Your task to perform on an android device: open app "Reddit" Image 0: 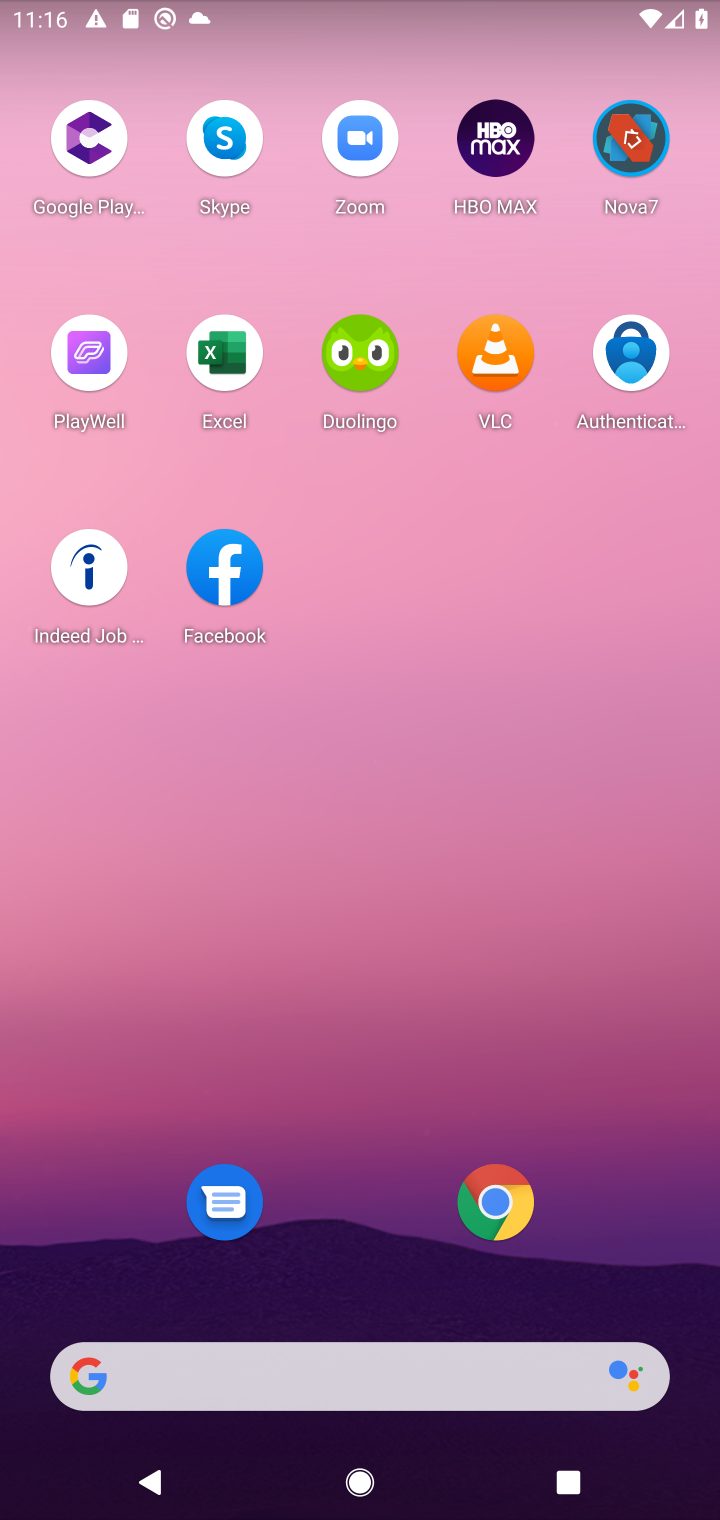
Step 0: click (366, 1370)
Your task to perform on an android device: open app "Reddit" Image 1: 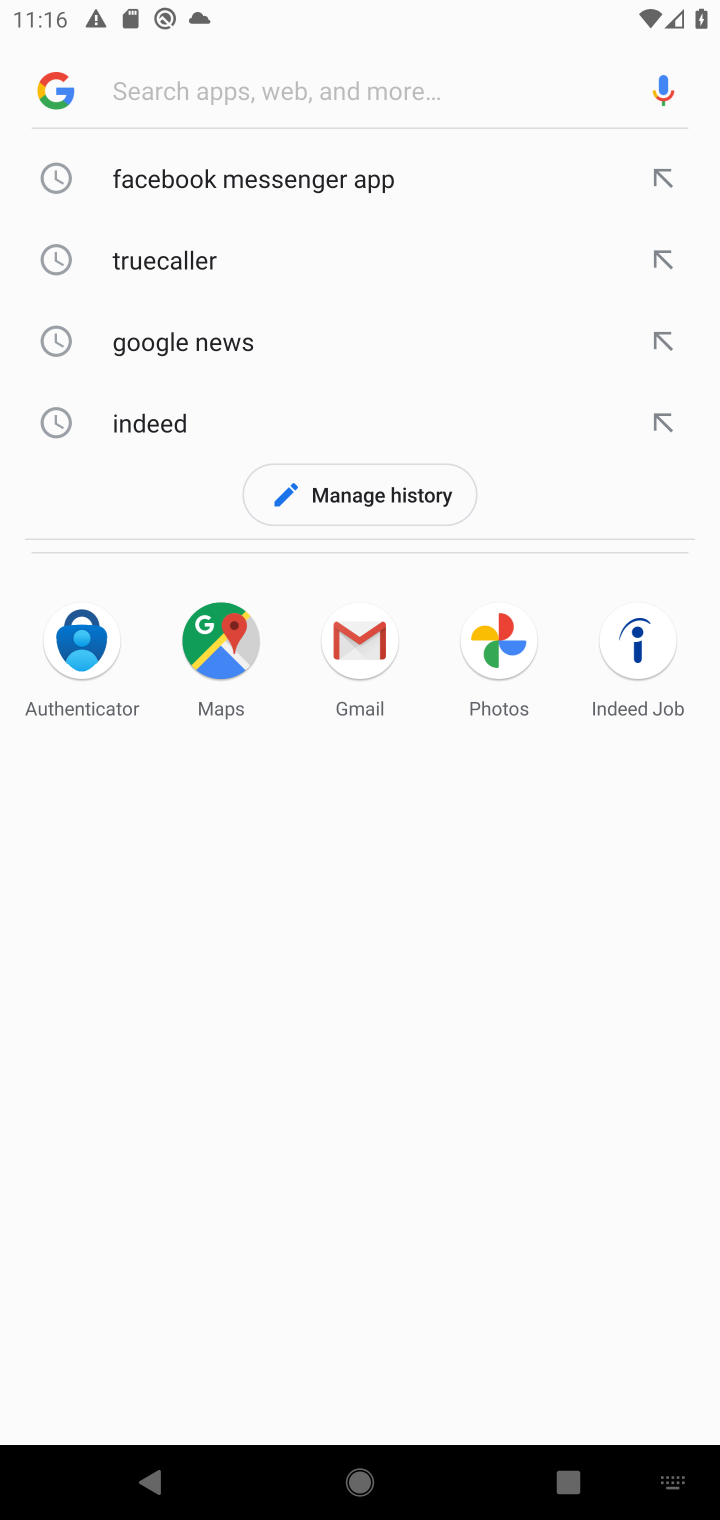
Step 1: type "reddit"
Your task to perform on an android device: open app "Reddit" Image 2: 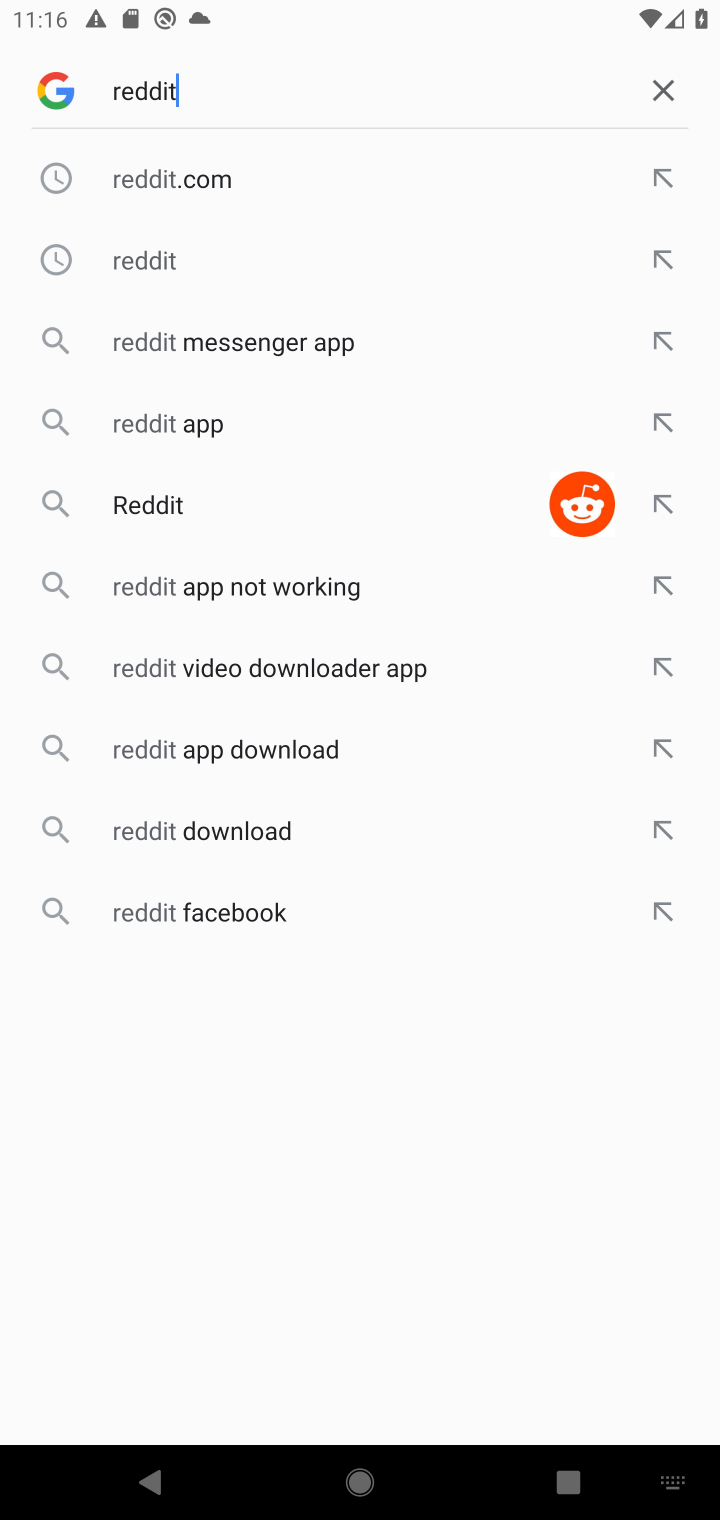
Step 2: click (346, 183)
Your task to perform on an android device: open app "Reddit" Image 3: 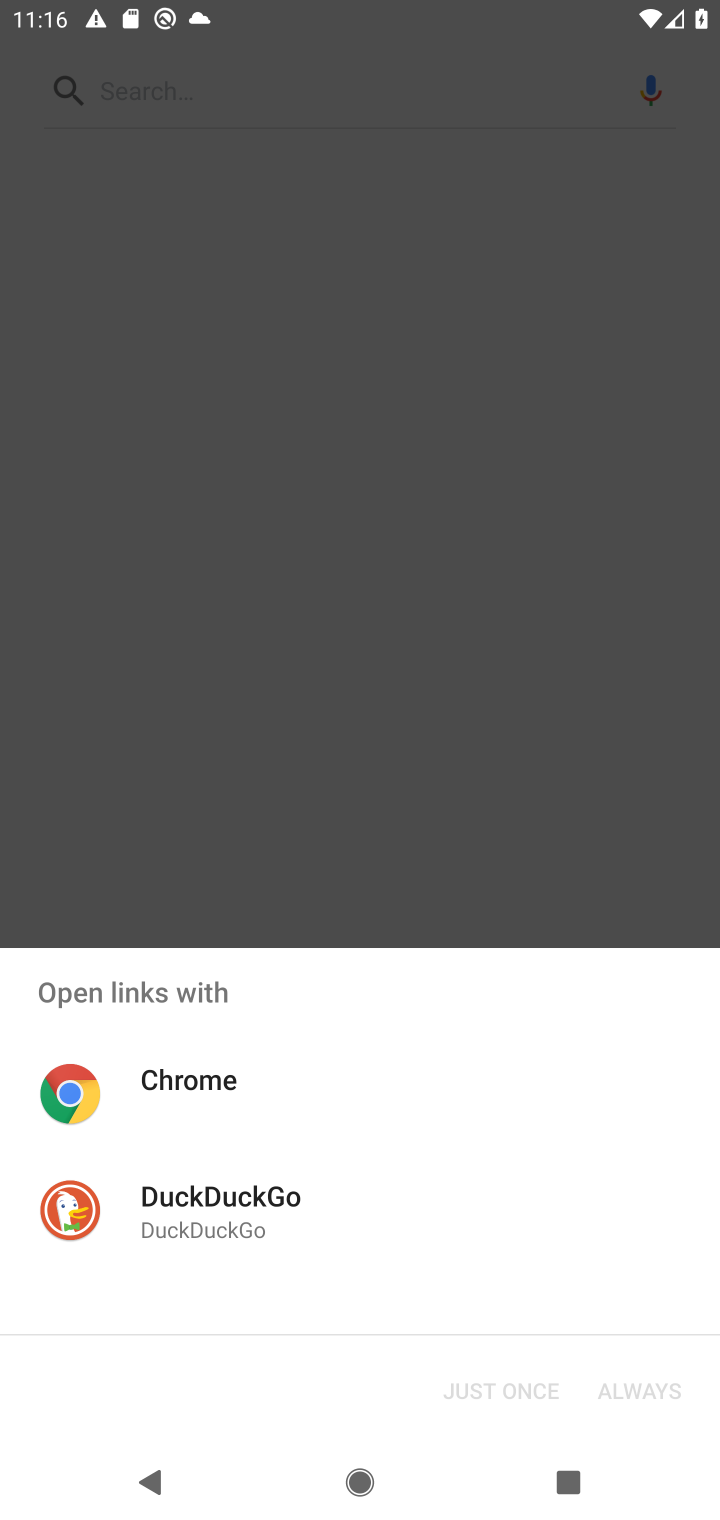
Step 3: click (256, 1108)
Your task to perform on an android device: open app "Reddit" Image 4: 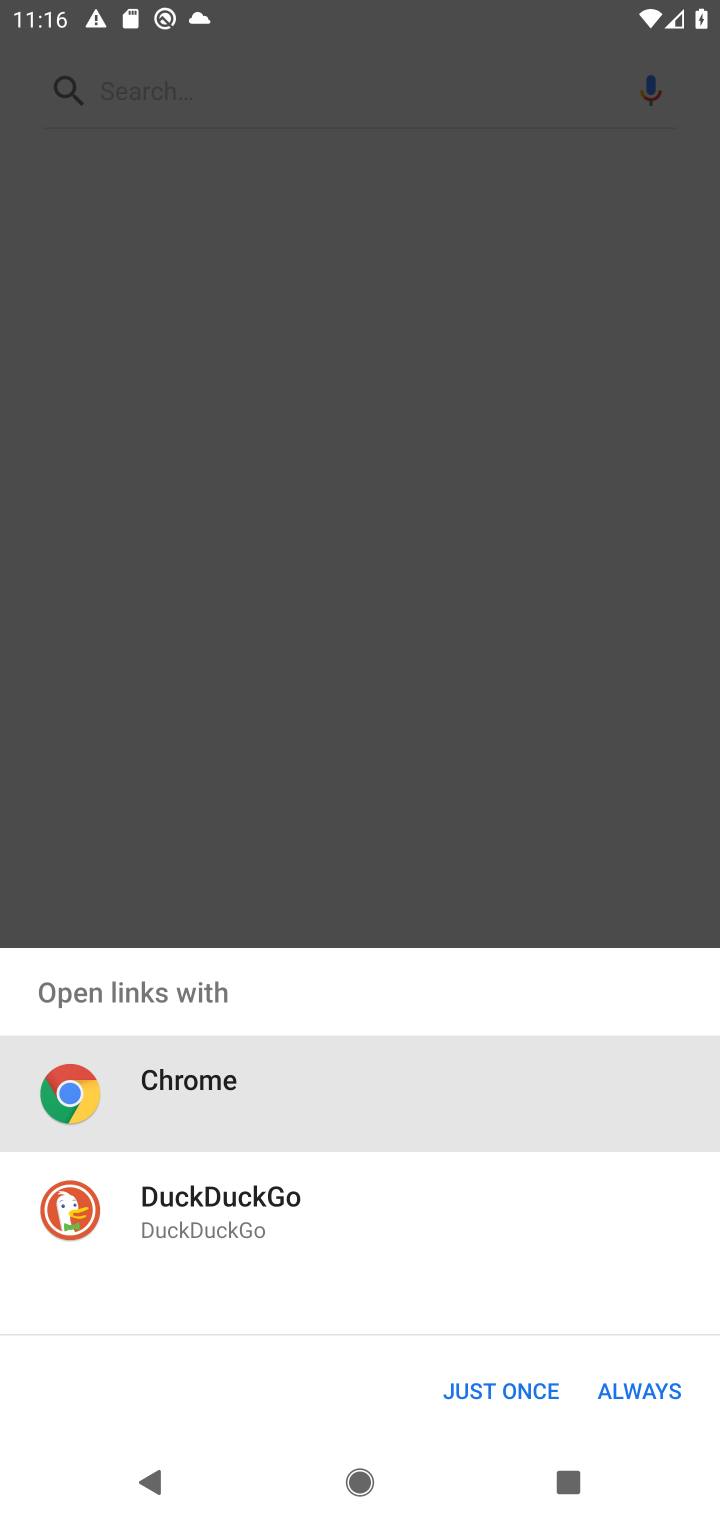
Step 4: task complete